Your task to perform on an android device: open device folders in google photos Image 0: 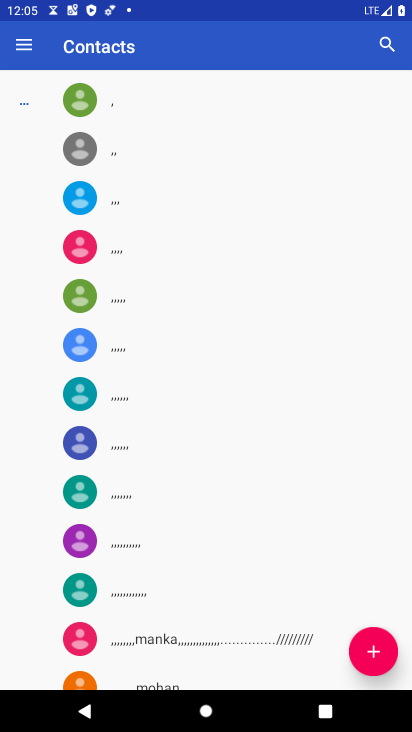
Step 0: drag from (216, 617) to (247, 110)
Your task to perform on an android device: open device folders in google photos Image 1: 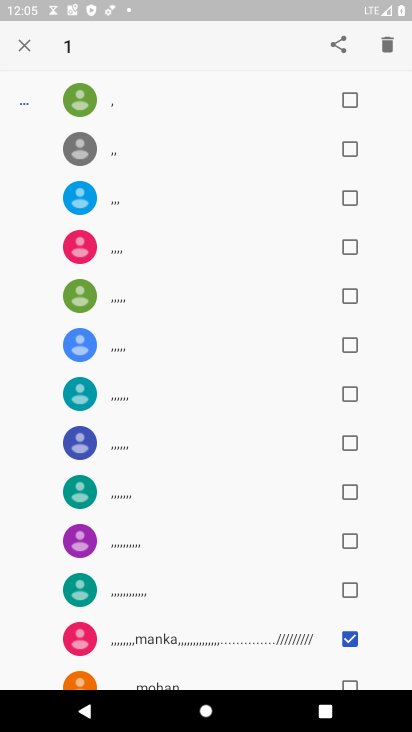
Step 1: press home button
Your task to perform on an android device: open device folders in google photos Image 2: 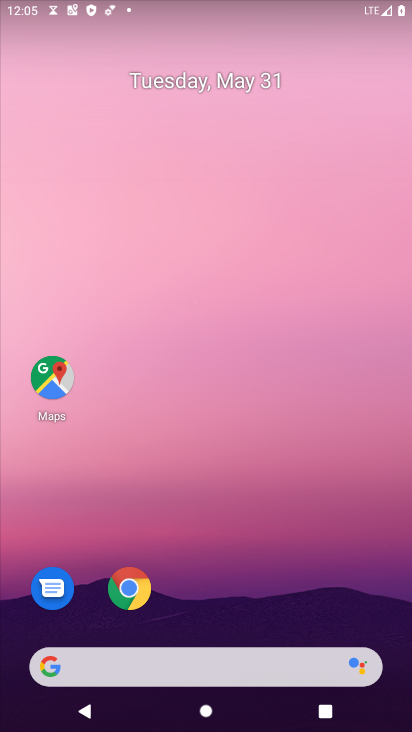
Step 2: drag from (211, 600) to (227, 162)
Your task to perform on an android device: open device folders in google photos Image 3: 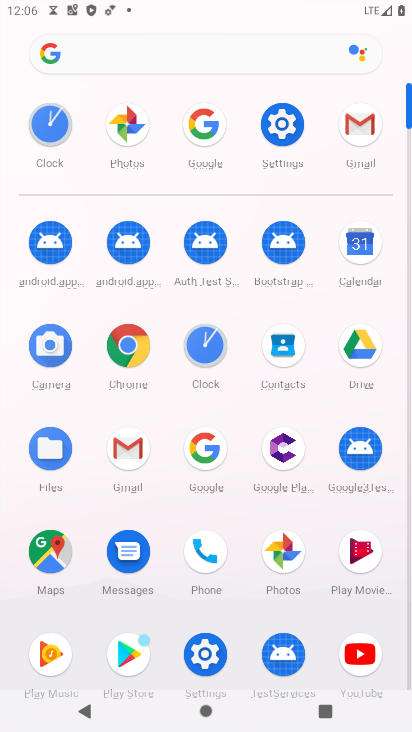
Step 3: click (275, 542)
Your task to perform on an android device: open device folders in google photos Image 4: 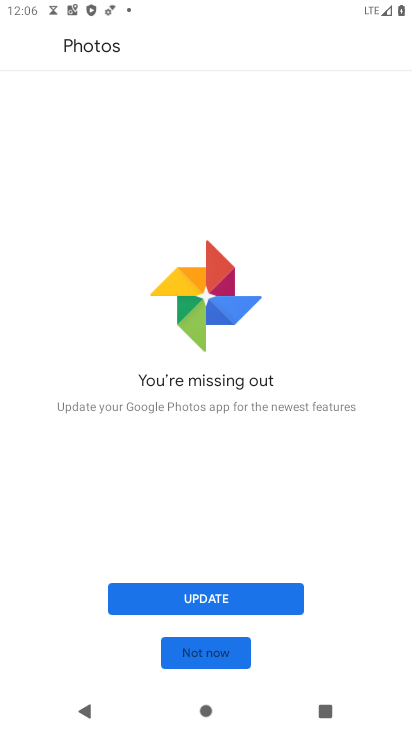
Step 4: click (211, 594)
Your task to perform on an android device: open device folders in google photos Image 5: 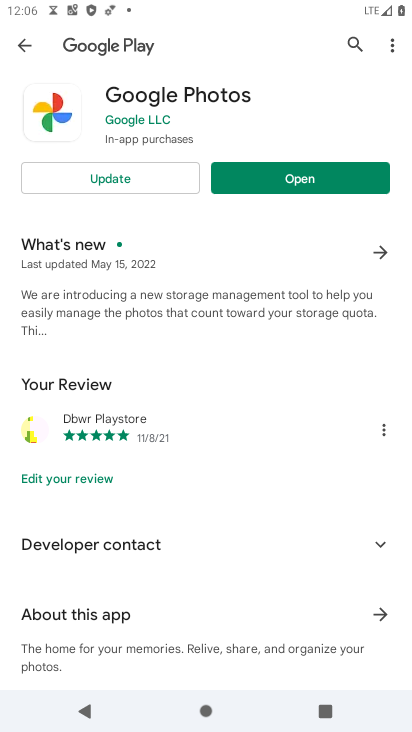
Step 5: click (112, 179)
Your task to perform on an android device: open device folders in google photos Image 6: 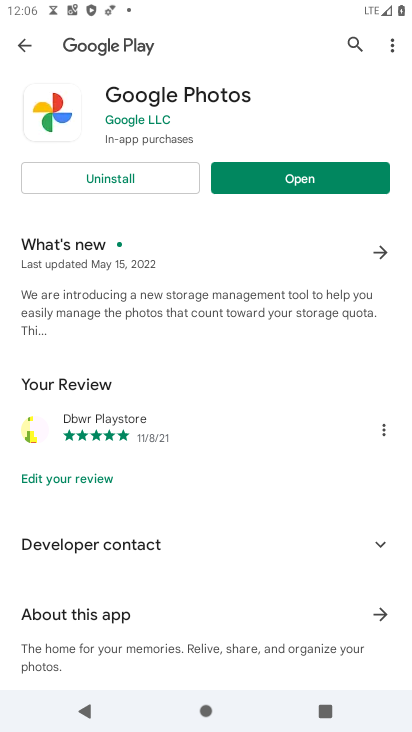
Step 6: click (308, 178)
Your task to perform on an android device: open device folders in google photos Image 7: 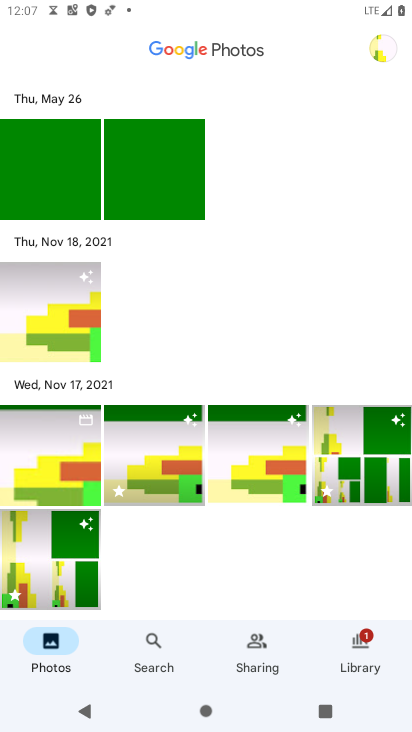
Step 7: click (159, 640)
Your task to perform on an android device: open device folders in google photos Image 8: 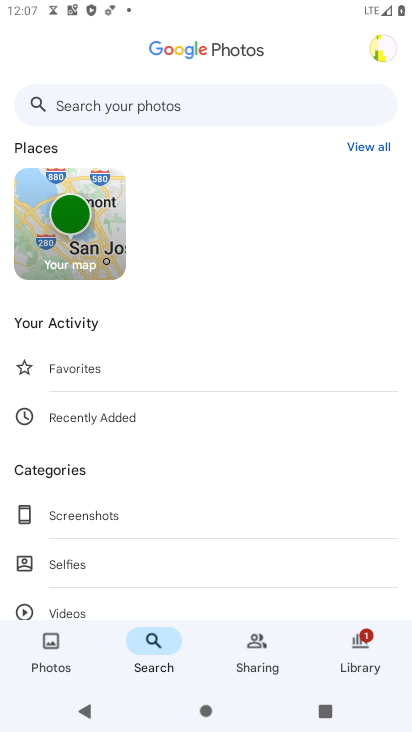
Step 8: click (86, 105)
Your task to perform on an android device: open device folders in google photos Image 9: 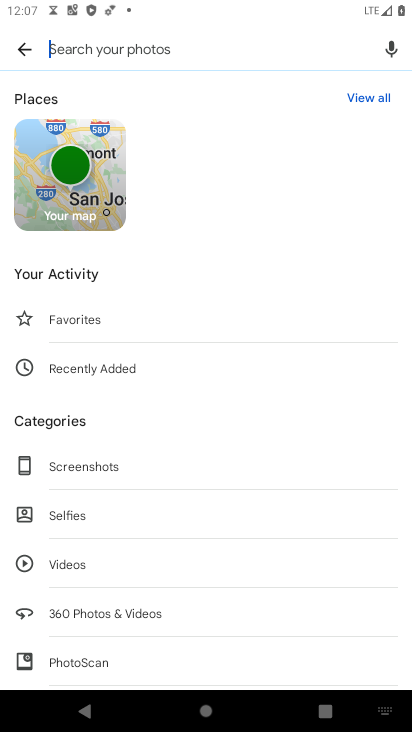
Step 9: type "device"
Your task to perform on an android device: open device folders in google photos Image 10: 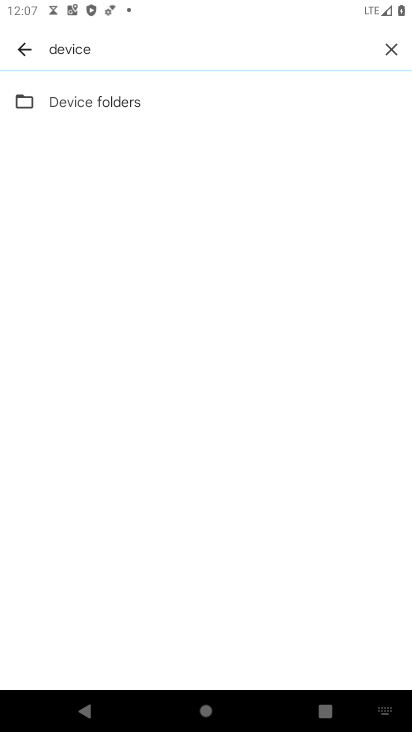
Step 10: click (112, 103)
Your task to perform on an android device: open device folders in google photos Image 11: 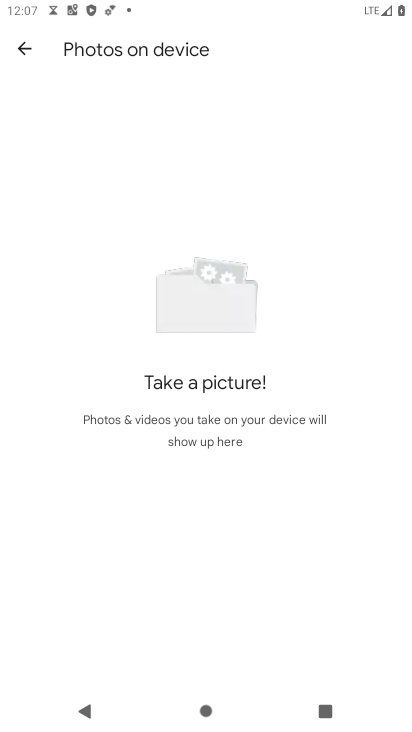
Step 11: task complete